Your task to perform on an android device: create a new album in the google photos Image 0: 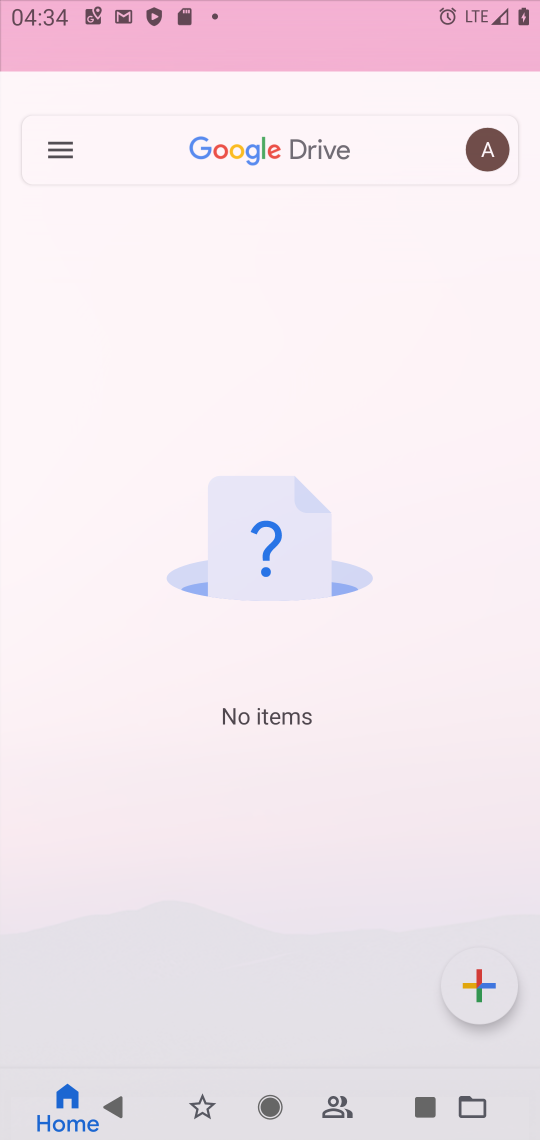
Step 0: drag from (324, 648) to (422, 50)
Your task to perform on an android device: create a new album in the google photos Image 1: 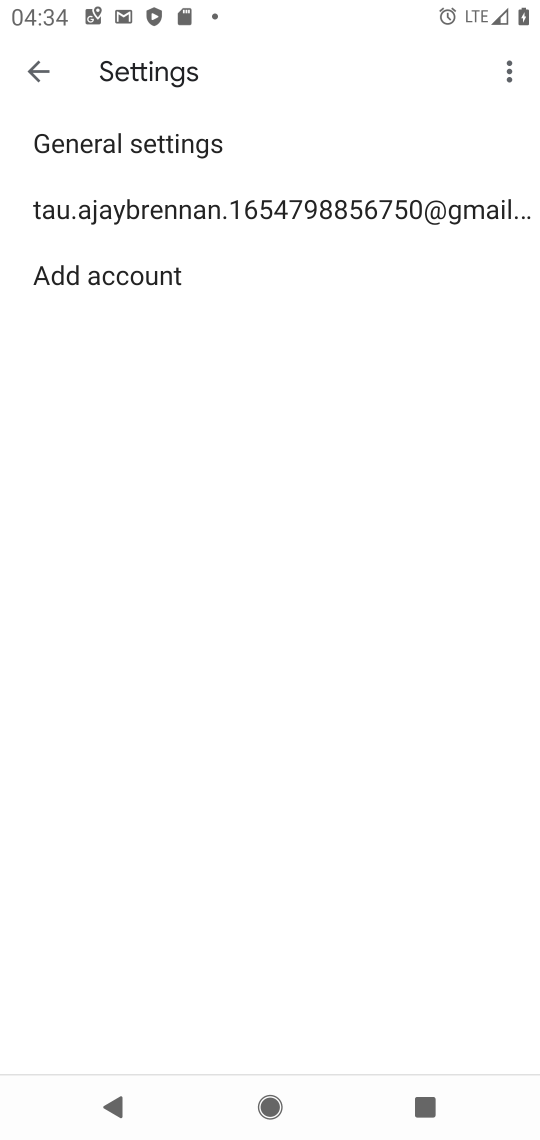
Step 1: press back button
Your task to perform on an android device: create a new album in the google photos Image 2: 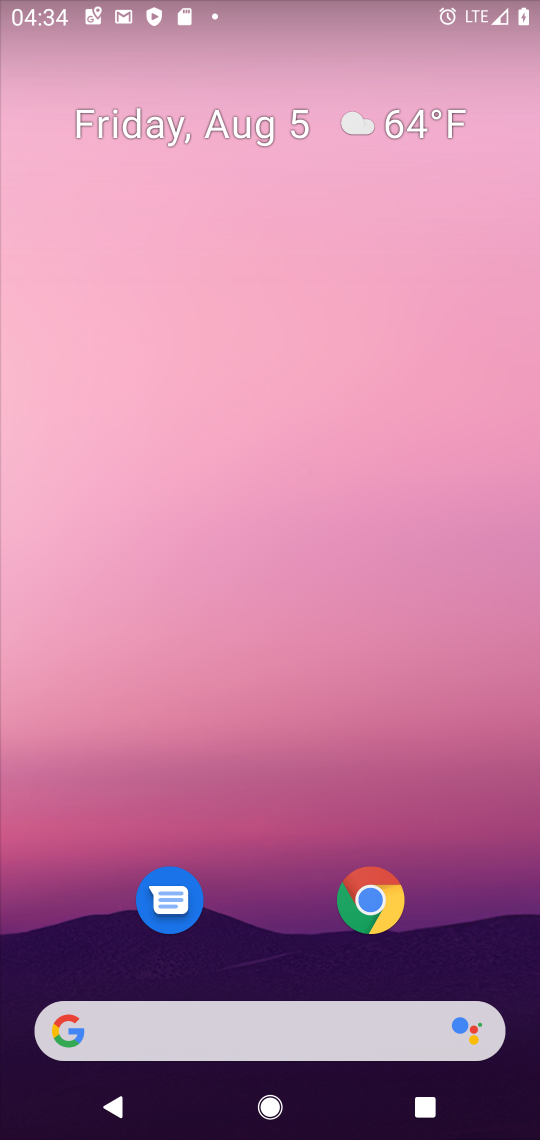
Step 2: drag from (307, 841) to (403, 94)
Your task to perform on an android device: create a new album in the google photos Image 3: 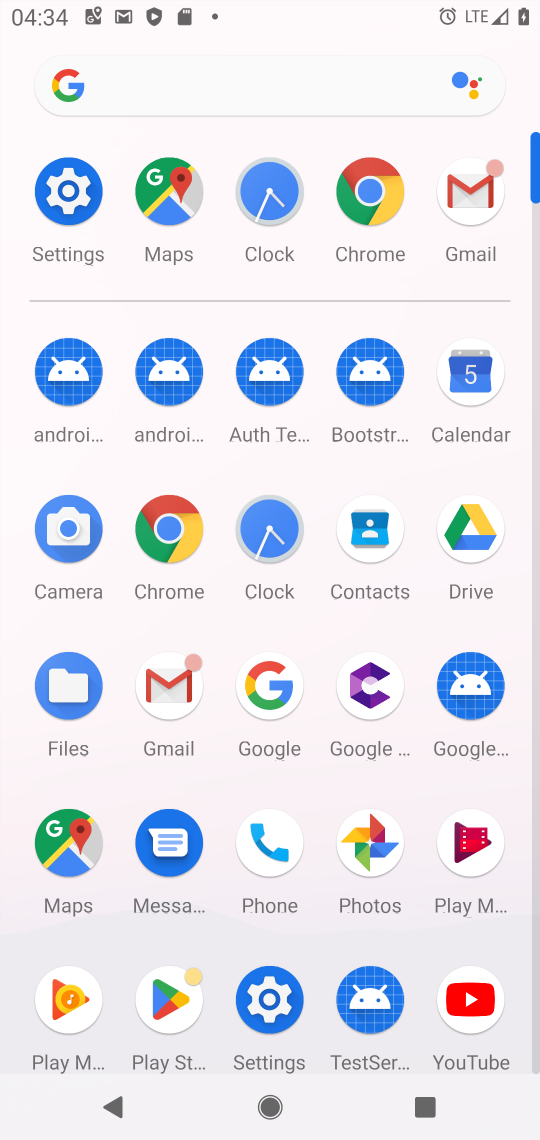
Step 3: click (379, 843)
Your task to perform on an android device: create a new album in the google photos Image 4: 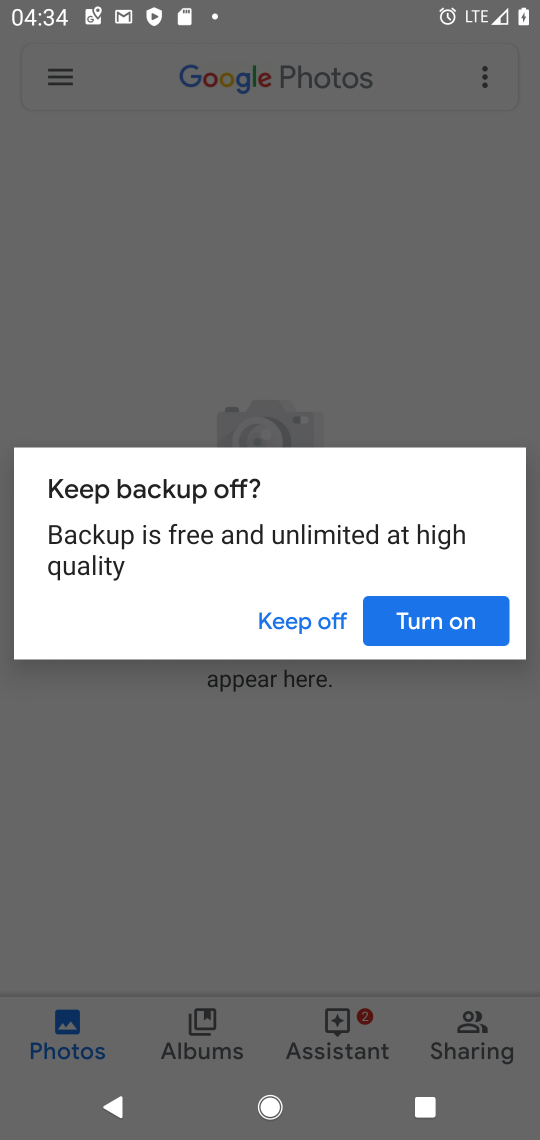
Step 4: click (277, 608)
Your task to perform on an android device: create a new album in the google photos Image 5: 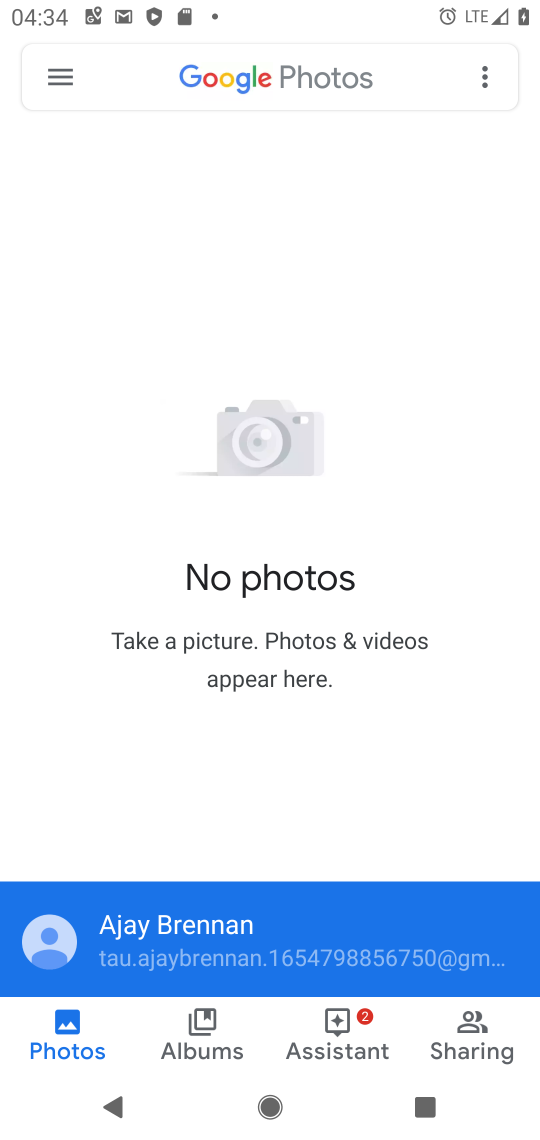
Step 5: click (178, 1044)
Your task to perform on an android device: create a new album in the google photos Image 6: 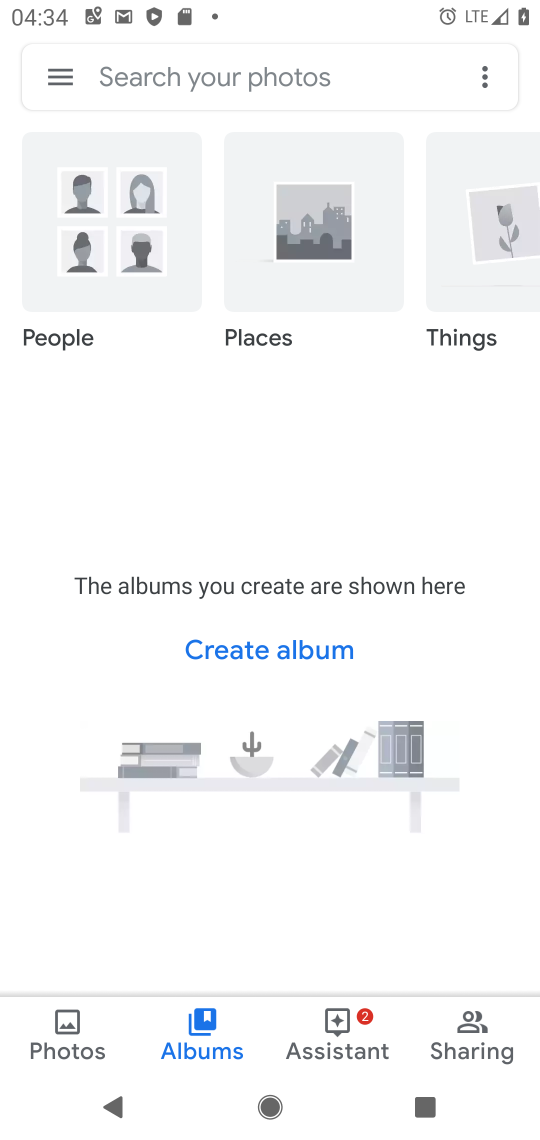
Step 6: click (254, 645)
Your task to perform on an android device: create a new album in the google photos Image 7: 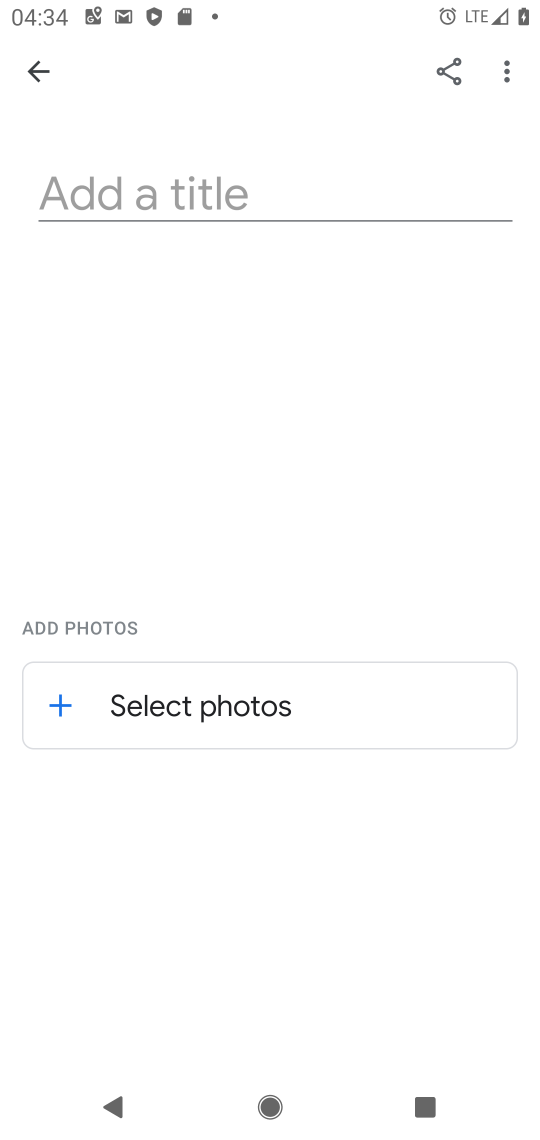
Step 7: click (216, 197)
Your task to perform on an android device: create a new album in the google photos Image 8: 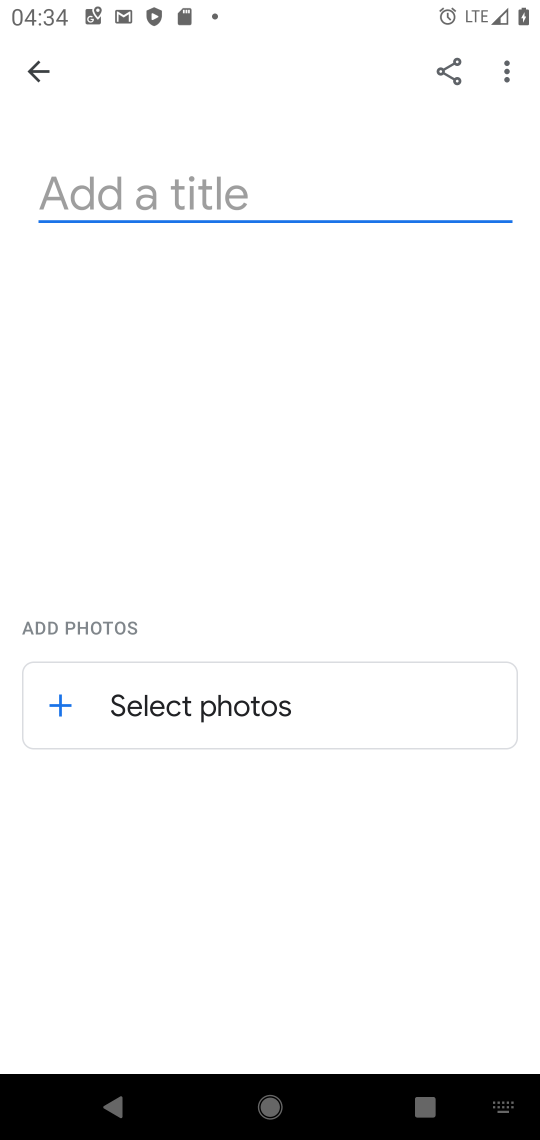
Step 8: type "hvcv"
Your task to perform on an android device: create a new album in the google photos Image 9: 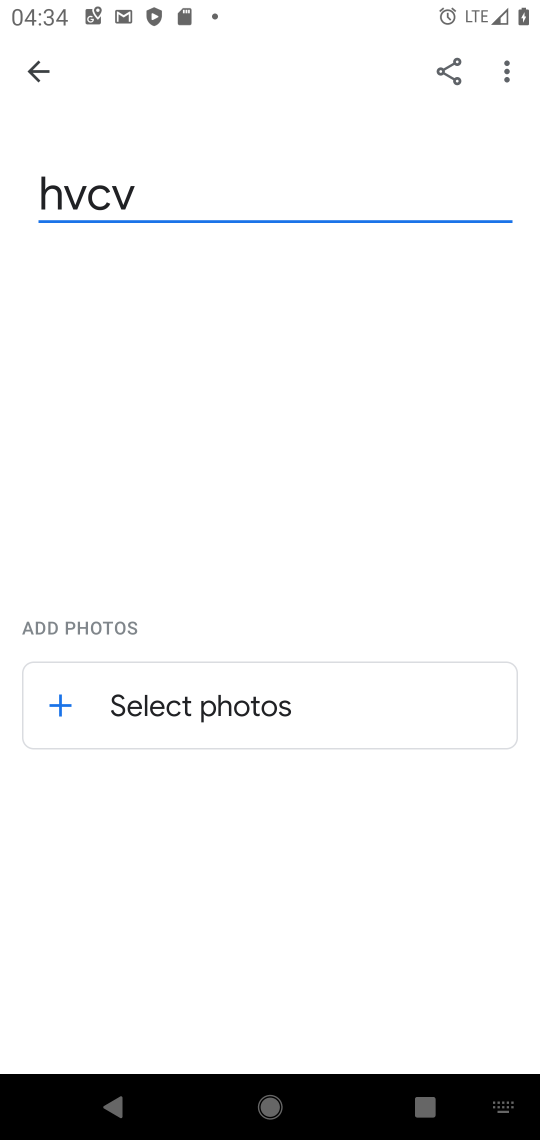
Step 9: click (207, 693)
Your task to perform on an android device: create a new album in the google photos Image 10: 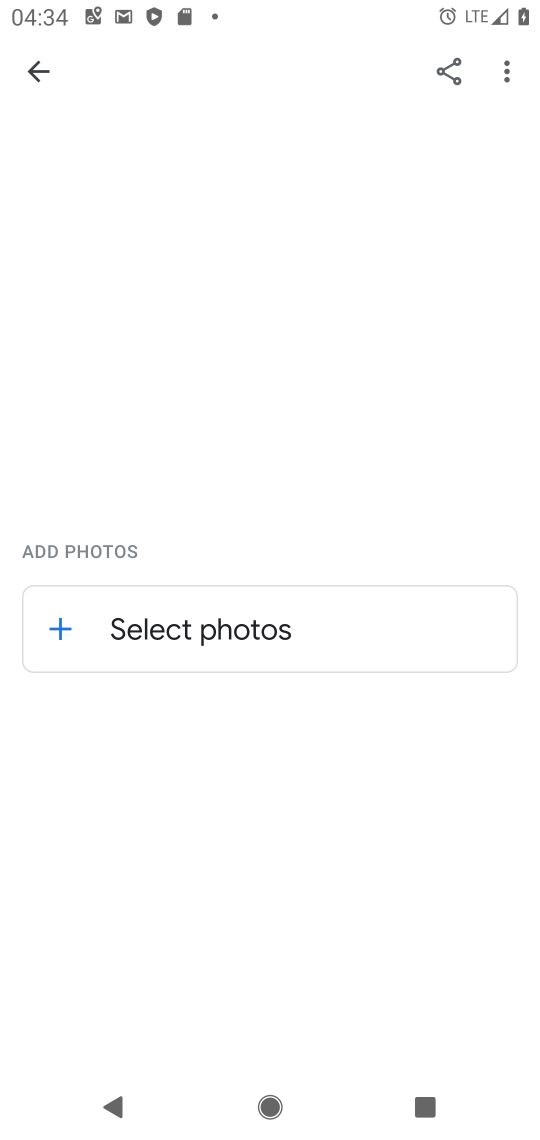
Step 10: click (190, 642)
Your task to perform on an android device: create a new album in the google photos Image 11: 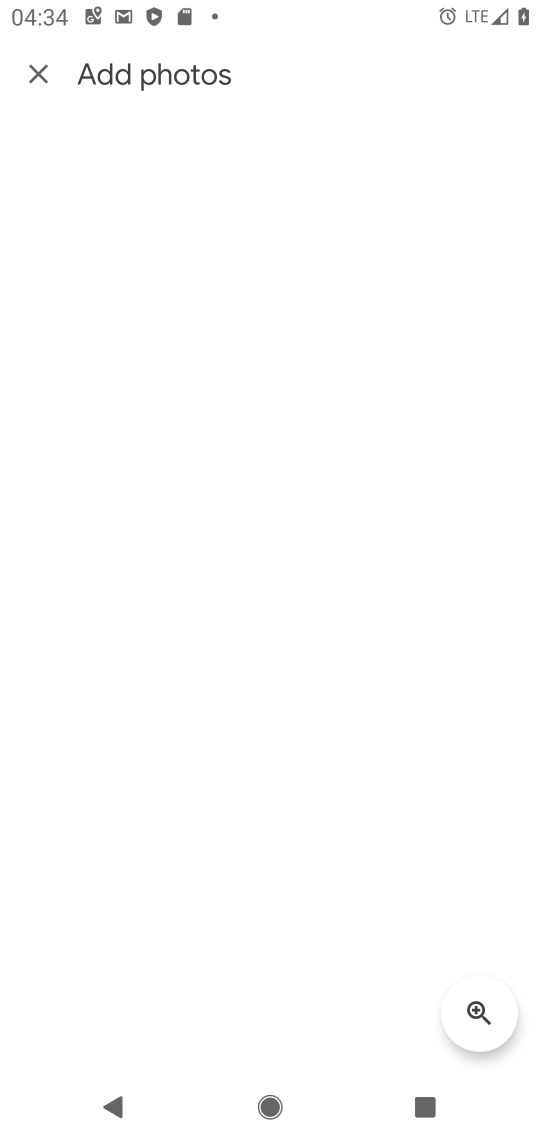
Step 11: task complete